Your task to perform on an android device: change the clock display to analog Image 0: 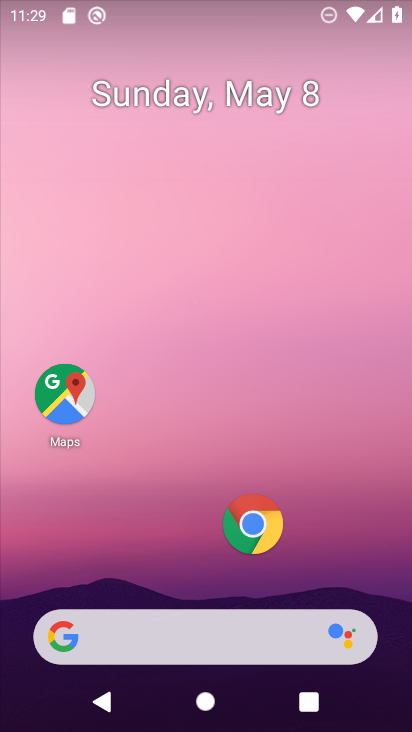
Step 0: drag from (189, 530) to (157, 18)
Your task to perform on an android device: change the clock display to analog Image 1: 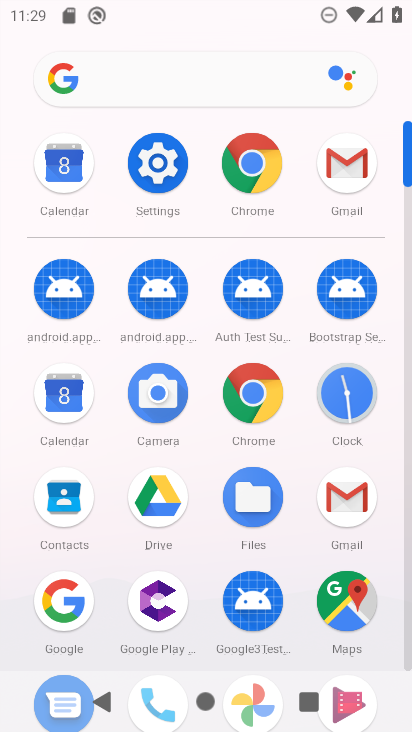
Step 1: click (342, 400)
Your task to perform on an android device: change the clock display to analog Image 2: 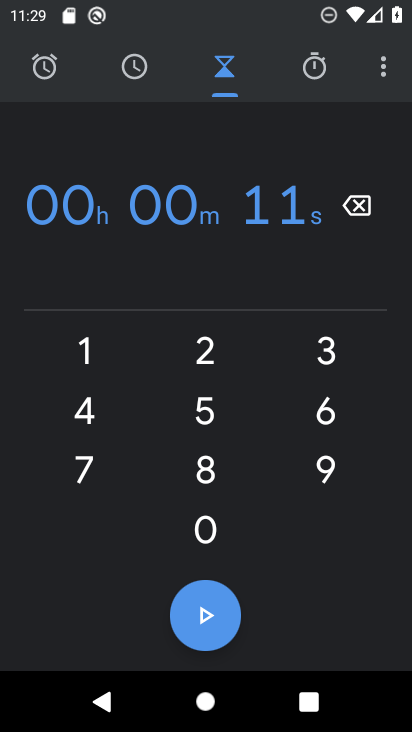
Step 2: click (143, 65)
Your task to perform on an android device: change the clock display to analog Image 3: 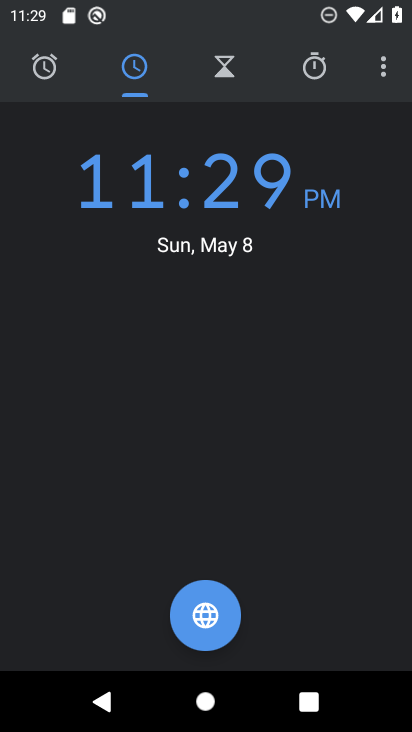
Step 3: click (383, 67)
Your task to perform on an android device: change the clock display to analog Image 4: 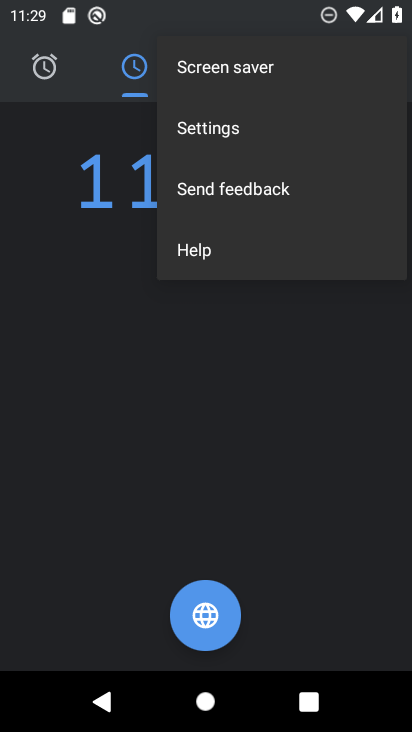
Step 4: click (231, 123)
Your task to perform on an android device: change the clock display to analog Image 5: 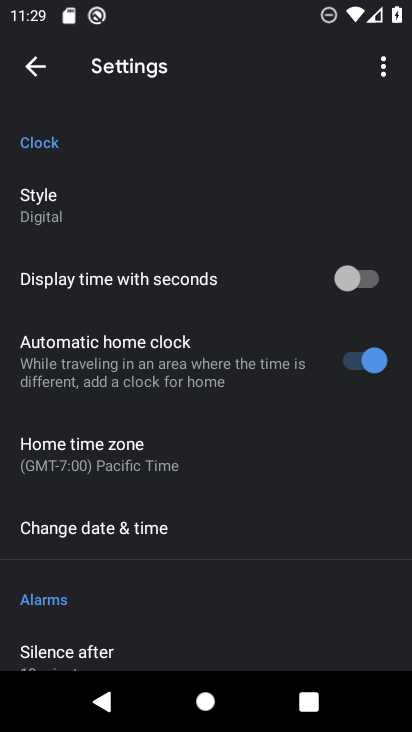
Step 5: click (88, 205)
Your task to perform on an android device: change the clock display to analog Image 6: 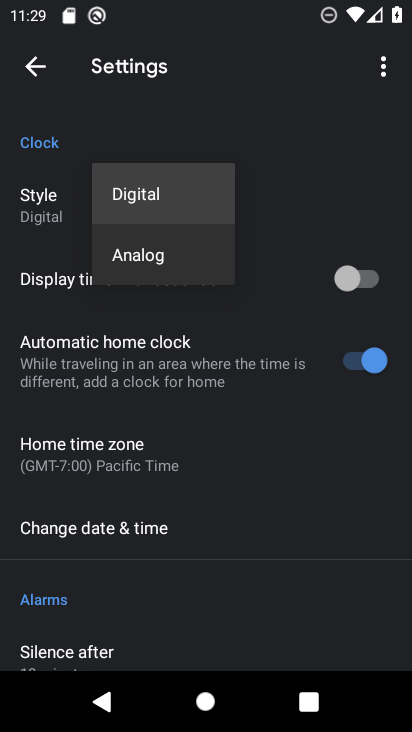
Step 6: click (130, 245)
Your task to perform on an android device: change the clock display to analog Image 7: 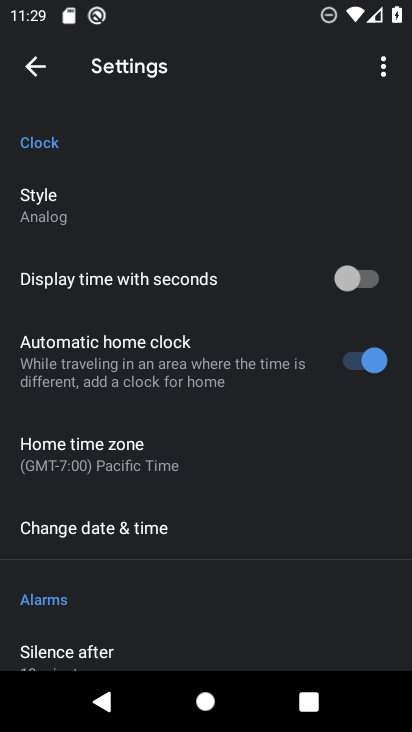
Step 7: click (33, 62)
Your task to perform on an android device: change the clock display to analog Image 8: 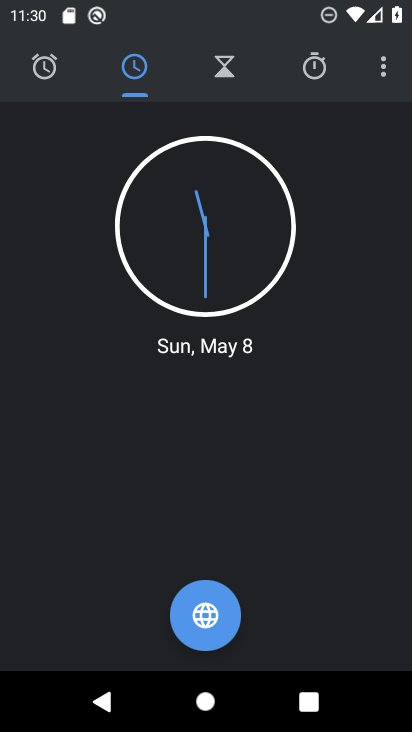
Step 8: task complete